Your task to perform on an android device: remove spam from my inbox in the gmail app Image 0: 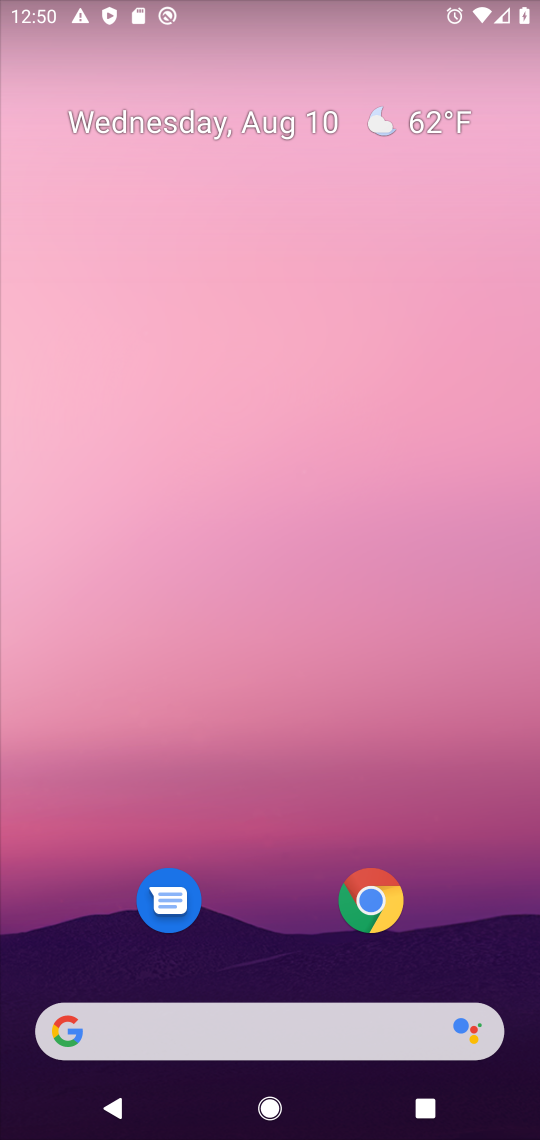
Step 0: drag from (263, 923) to (272, 35)
Your task to perform on an android device: remove spam from my inbox in the gmail app Image 1: 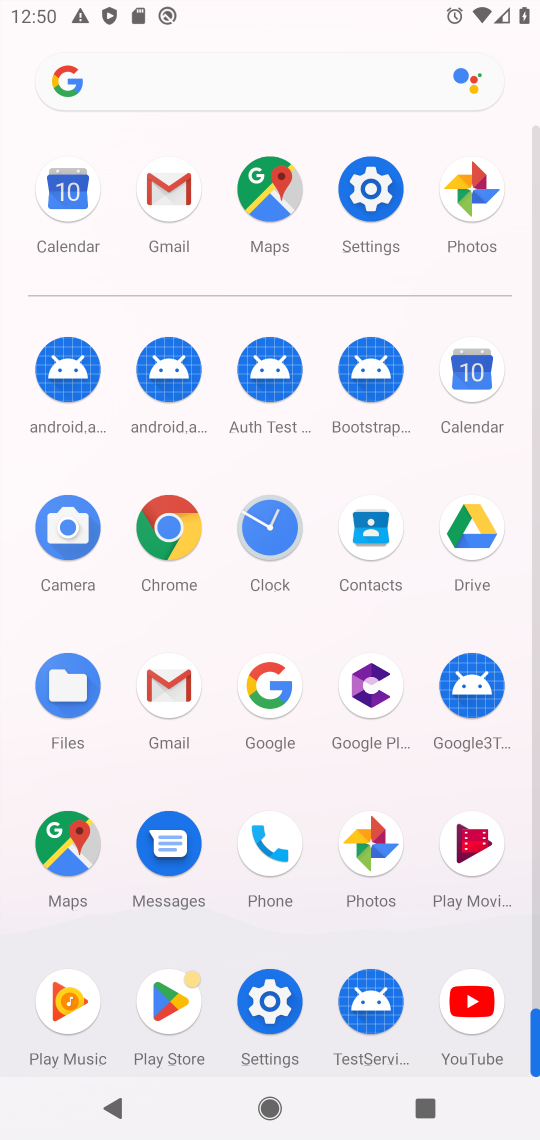
Step 1: click (182, 196)
Your task to perform on an android device: remove spam from my inbox in the gmail app Image 2: 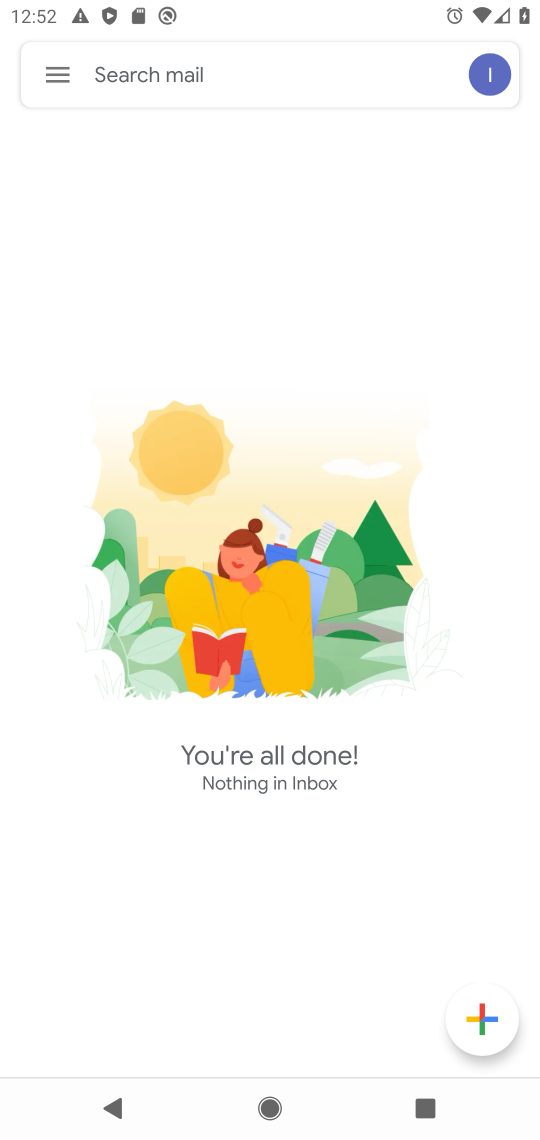
Step 2: task complete